Your task to perform on an android device: Open settings on Google Maps Image 0: 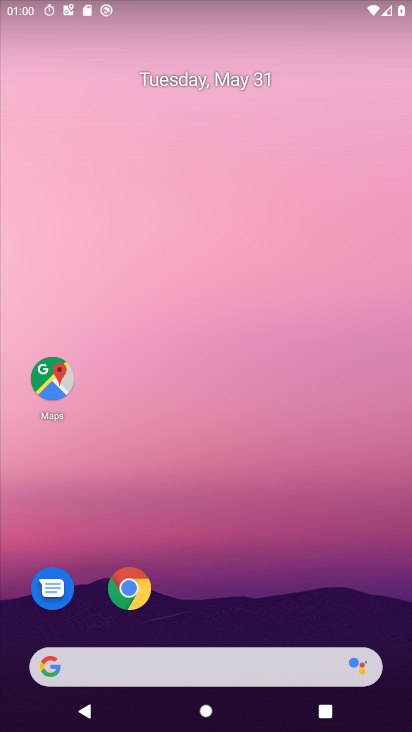
Step 0: drag from (196, 675) to (155, 39)
Your task to perform on an android device: Open settings on Google Maps Image 1: 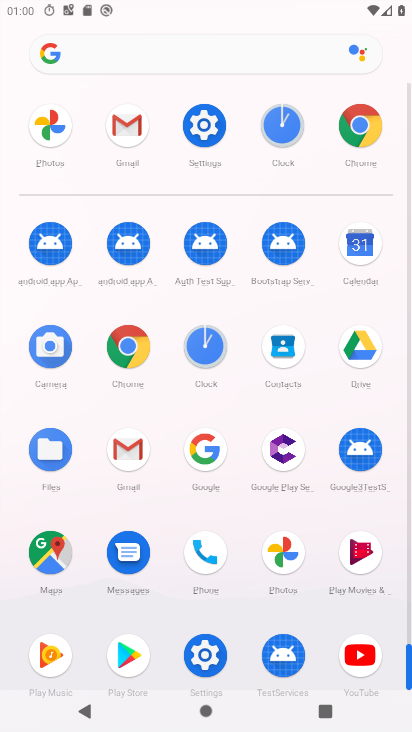
Step 1: click (40, 554)
Your task to perform on an android device: Open settings on Google Maps Image 2: 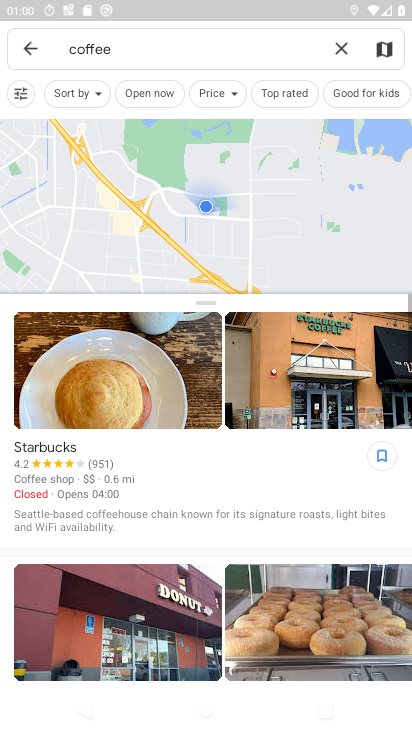
Step 2: press back button
Your task to perform on an android device: Open settings on Google Maps Image 3: 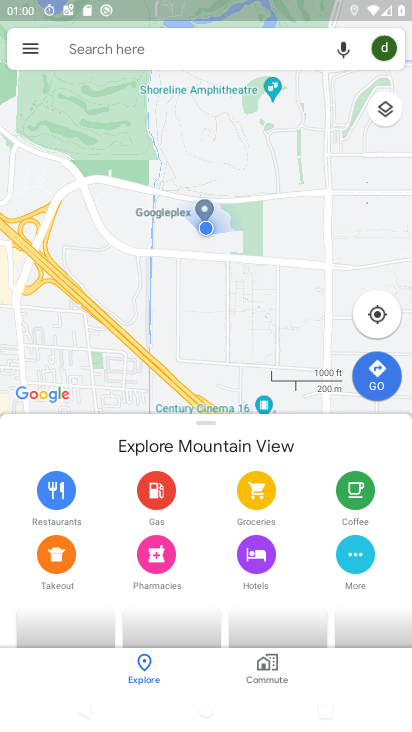
Step 3: click (29, 49)
Your task to perform on an android device: Open settings on Google Maps Image 4: 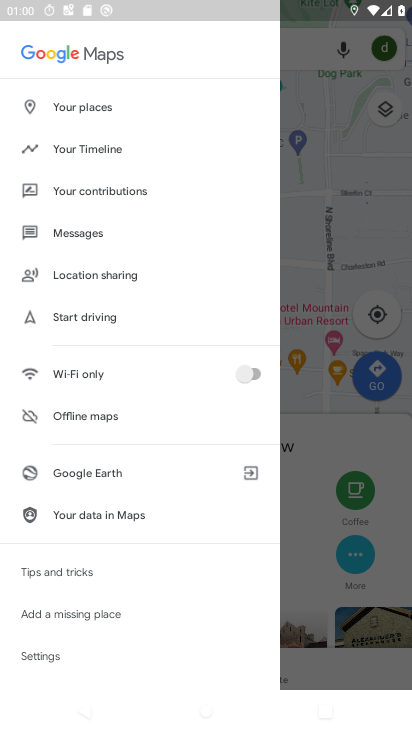
Step 4: click (126, 138)
Your task to perform on an android device: Open settings on Google Maps Image 5: 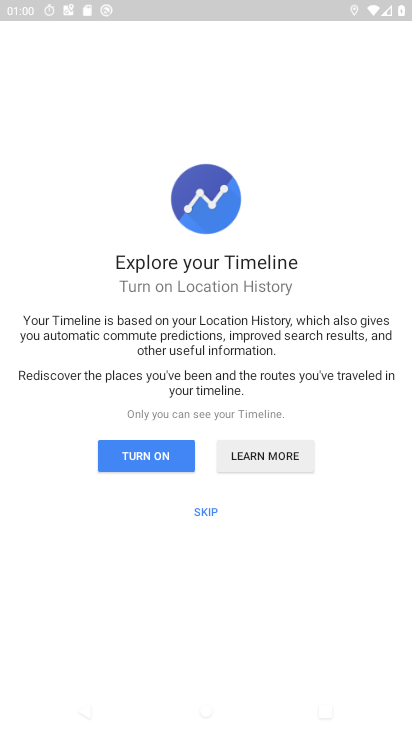
Step 5: click (210, 508)
Your task to perform on an android device: Open settings on Google Maps Image 6: 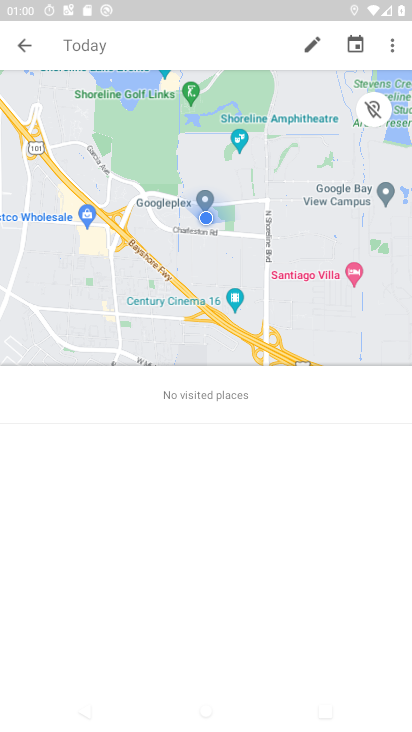
Step 6: click (393, 33)
Your task to perform on an android device: Open settings on Google Maps Image 7: 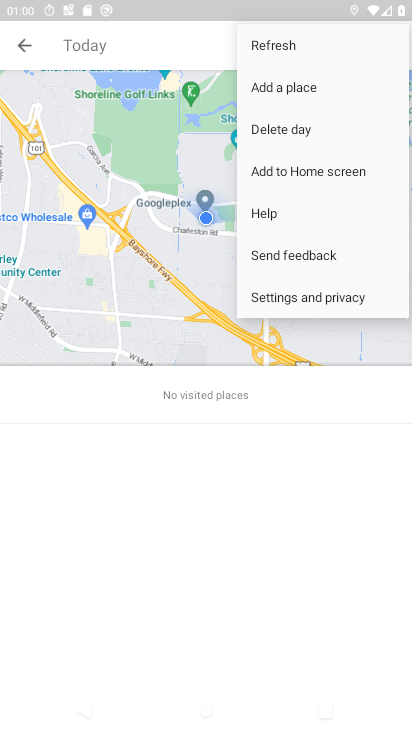
Step 7: click (332, 292)
Your task to perform on an android device: Open settings on Google Maps Image 8: 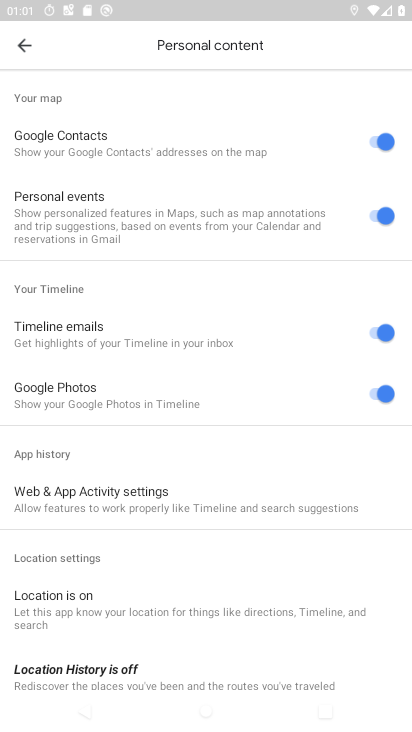
Step 8: press home button
Your task to perform on an android device: Open settings on Google Maps Image 9: 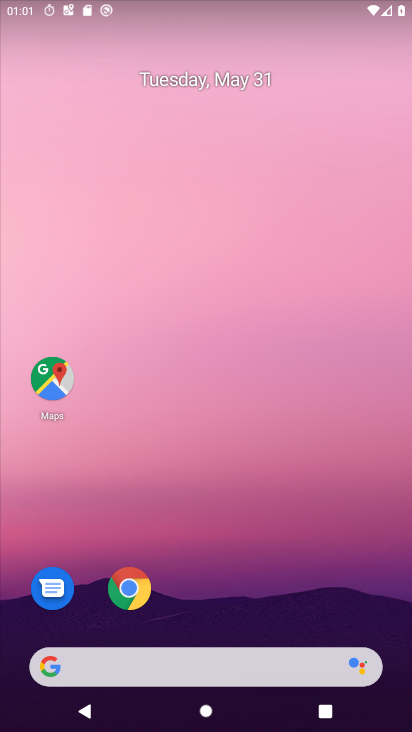
Step 9: drag from (264, 659) to (350, 5)
Your task to perform on an android device: Open settings on Google Maps Image 10: 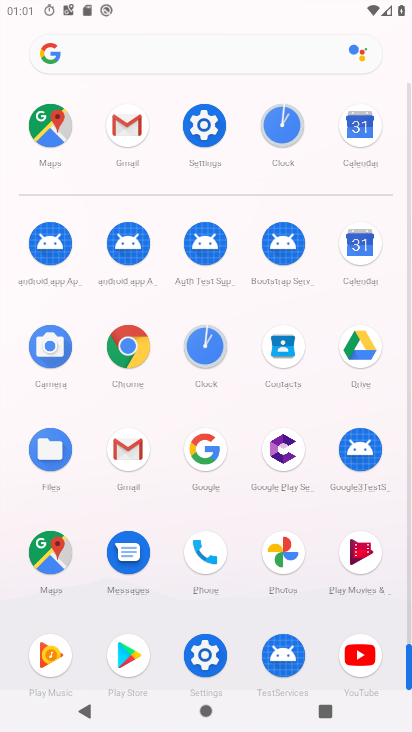
Step 10: click (36, 547)
Your task to perform on an android device: Open settings on Google Maps Image 11: 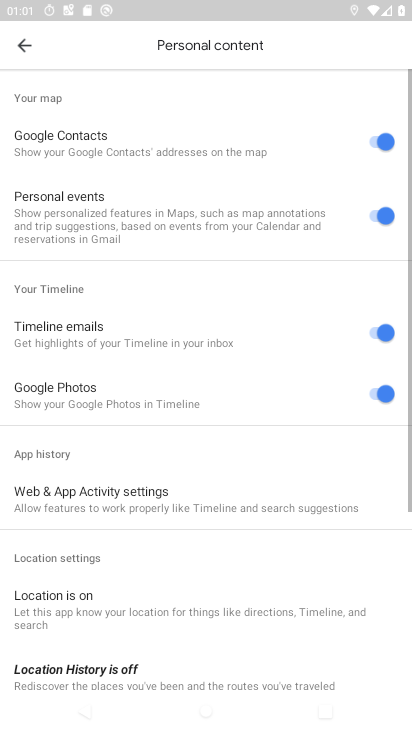
Step 11: task complete